Your task to perform on an android device: turn notification dots on Image 0: 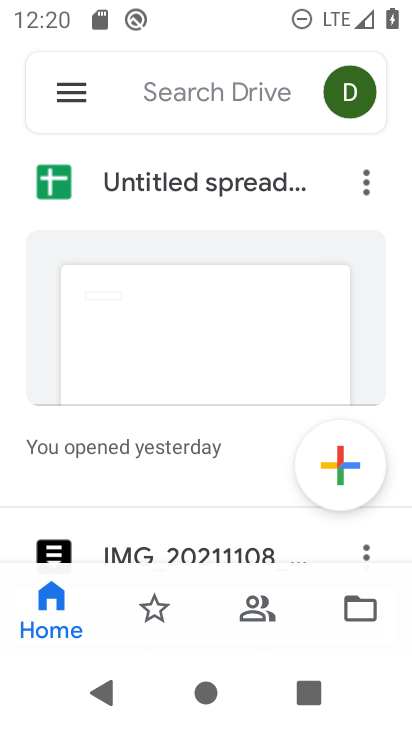
Step 0: press home button
Your task to perform on an android device: turn notification dots on Image 1: 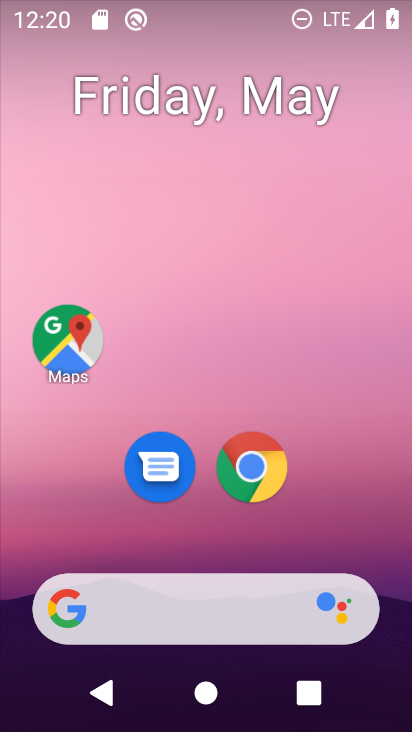
Step 1: drag from (346, 591) to (409, 237)
Your task to perform on an android device: turn notification dots on Image 2: 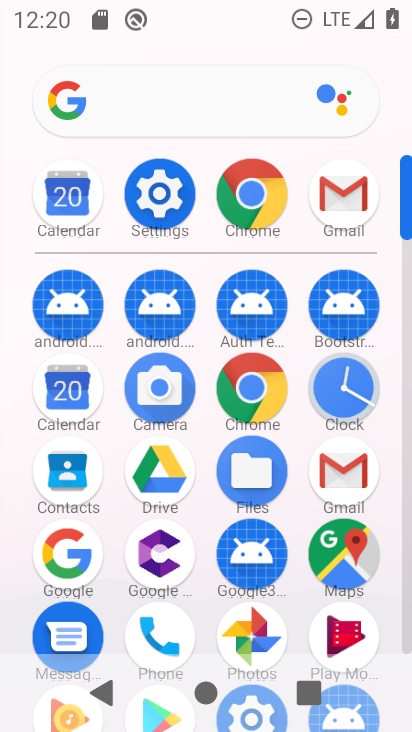
Step 2: click (169, 223)
Your task to perform on an android device: turn notification dots on Image 3: 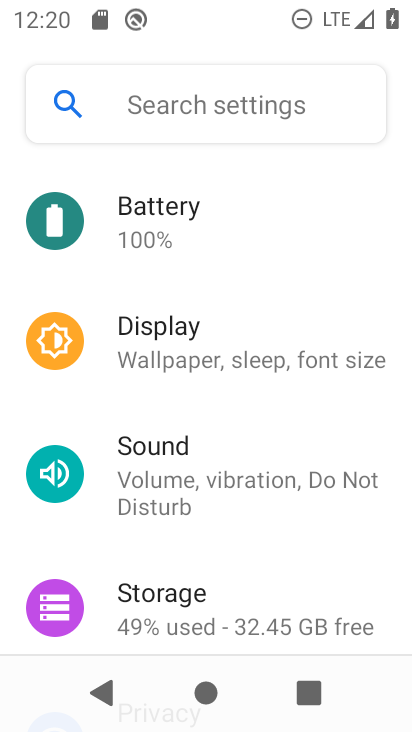
Step 3: drag from (262, 279) to (254, 642)
Your task to perform on an android device: turn notification dots on Image 4: 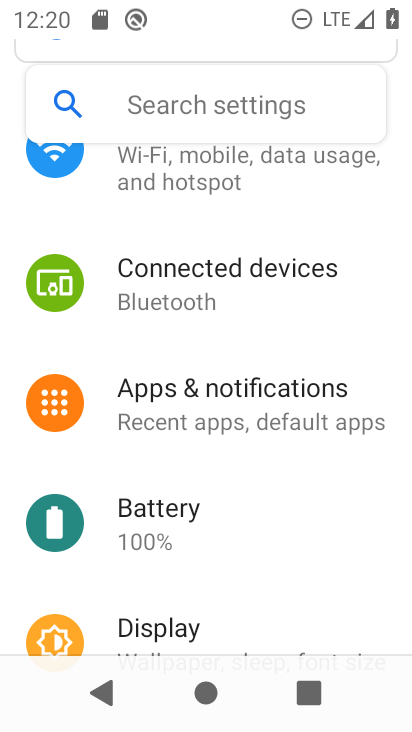
Step 4: drag from (233, 295) to (238, 352)
Your task to perform on an android device: turn notification dots on Image 5: 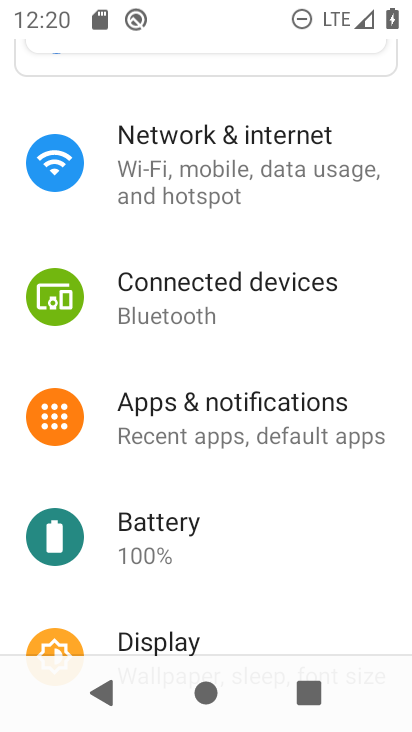
Step 5: click (240, 406)
Your task to perform on an android device: turn notification dots on Image 6: 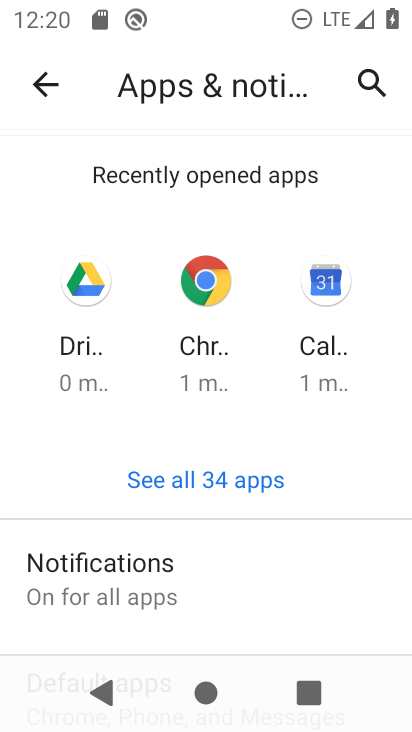
Step 6: drag from (304, 615) to (338, 91)
Your task to perform on an android device: turn notification dots on Image 7: 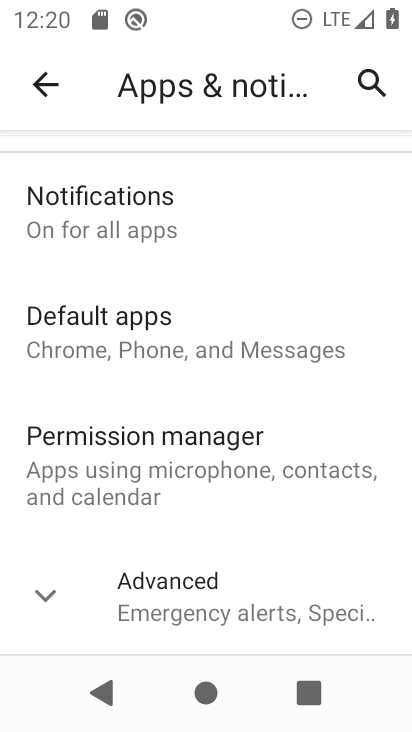
Step 7: click (157, 229)
Your task to perform on an android device: turn notification dots on Image 8: 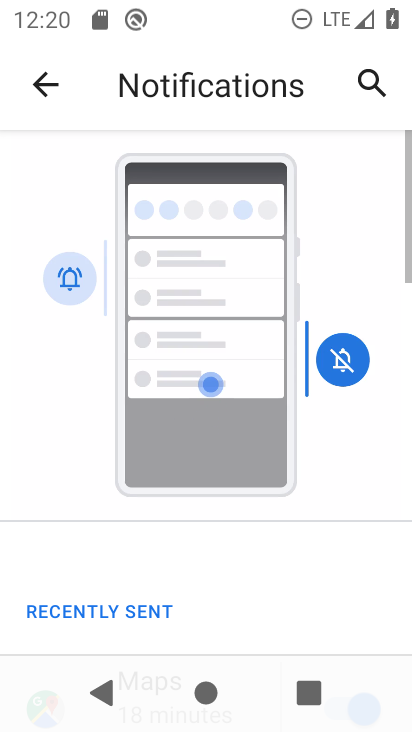
Step 8: drag from (176, 500) to (326, 5)
Your task to perform on an android device: turn notification dots on Image 9: 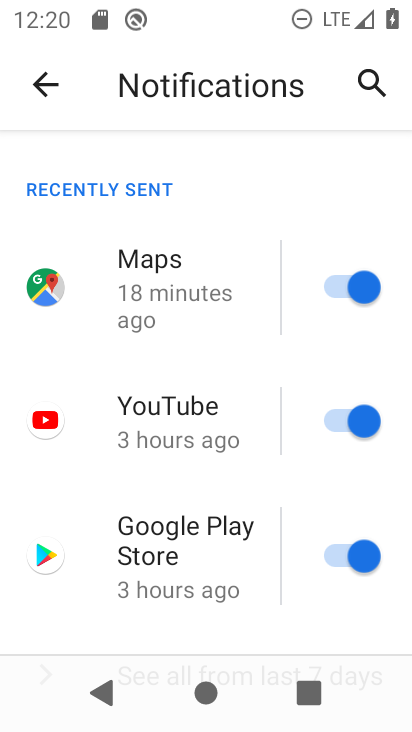
Step 9: drag from (201, 594) to (241, 92)
Your task to perform on an android device: turn notification dots on Image 10: 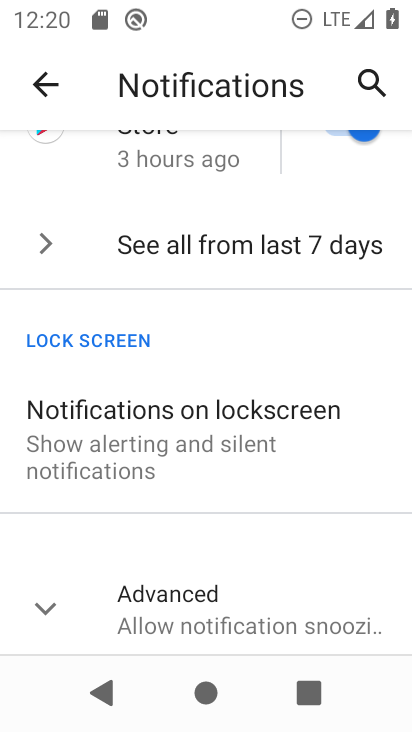
Step 10: click (185, 618)
Your task to perform on an android device: turn notification dots on Image 11: 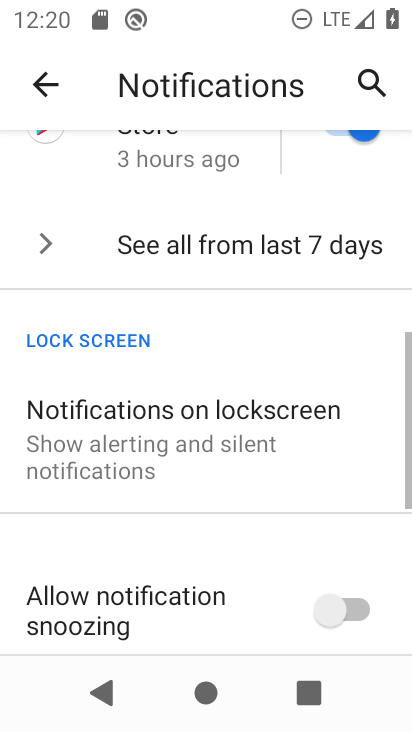
Step 11: task complete